Your task to perform on an android device: turn notification dots on Image 0: 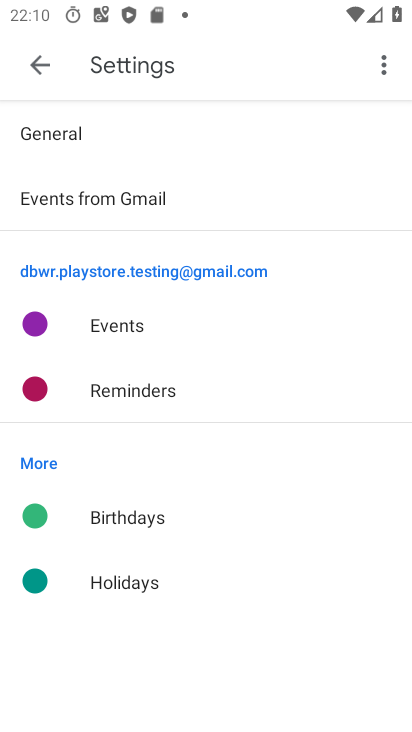
Step 0: press home button
Your task to perform on an android device: turn notification dots on Image 1: 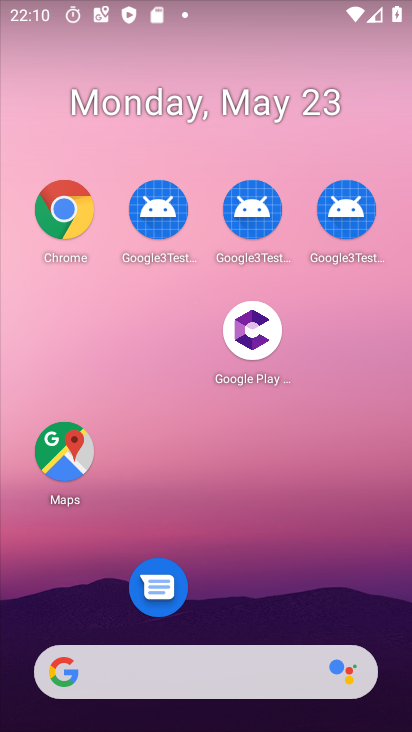
Step 1: drag from (264, 584) to (245, 39)
Your task to perform on an android device: turn notification dots on Image 2: 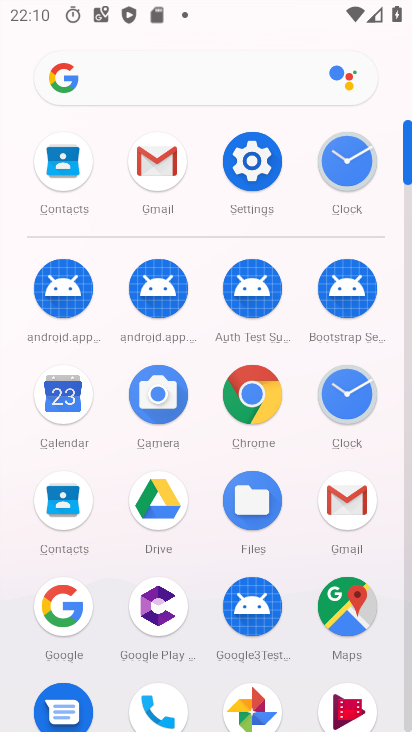
Step 2: click (255, 171)
Your task to perform on an android device: turn notification dots on Image 3: 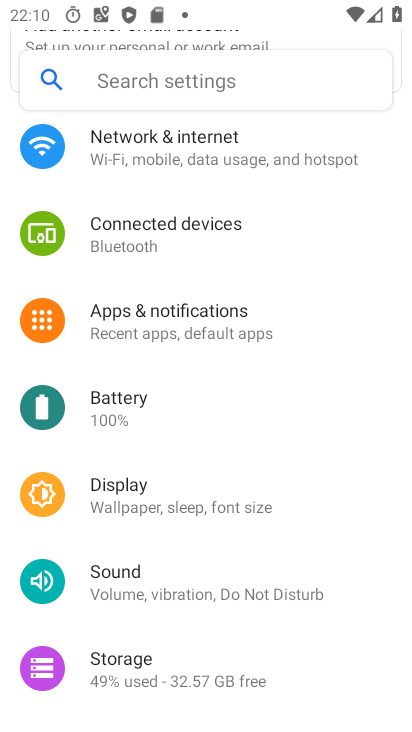
Step 3: click (212, 309)
Your task to perform on an android device: turn notification dots on Image 4: 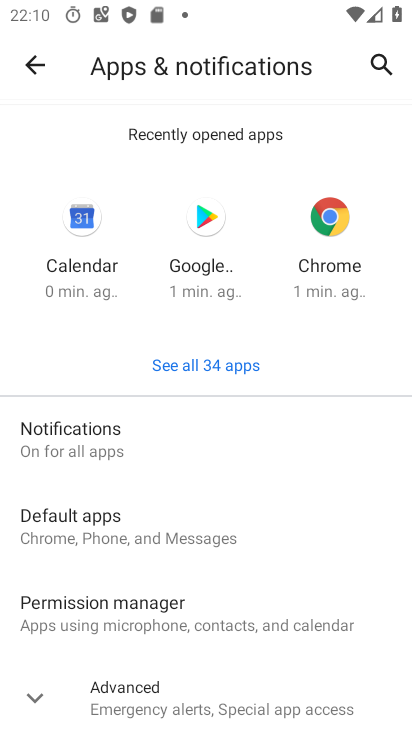
Step 4: click (149, 435)
Your task to perform on an android device: turn notification dots on Image 5: 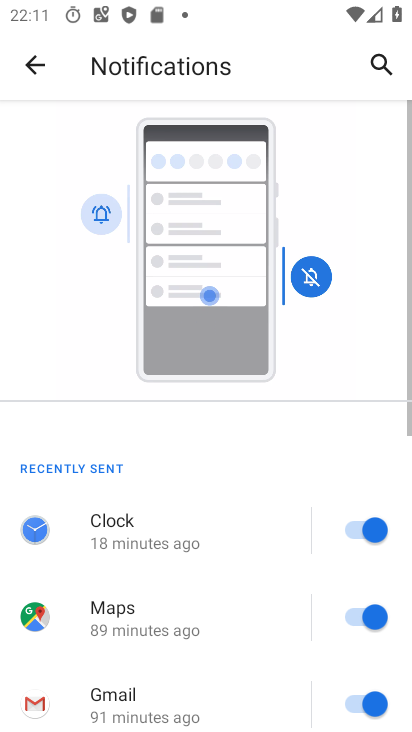
Step 5: drag from (211, 652) to (190, 172)
Your task to perform on an android device: turn notification dots on Image 6: 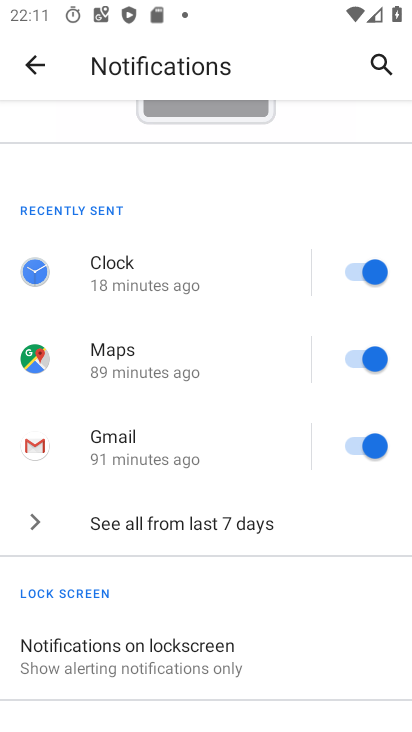
Step 6: drag from (250, 646) to (228, 322)
Your task to perform on an android device: turn notification dots on Image 7: 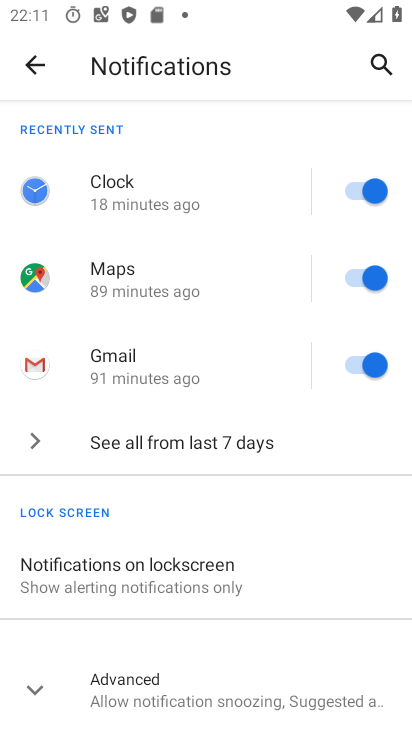
Step 7: click (247, 692)
Your task to perform on an android device: turn notification dots on Image 8: 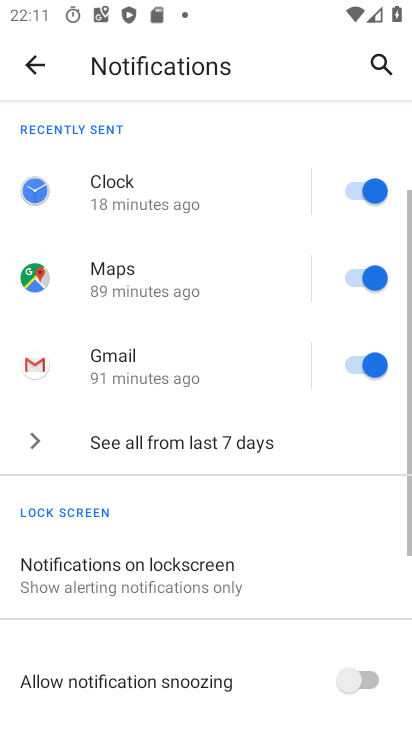
Step 8: task complete